Your task to perform on an android device: turn off location Image 0: 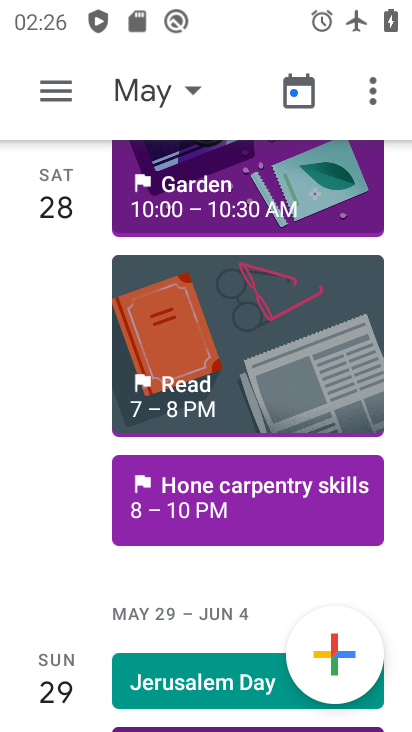
Step 0: press home button
Your task to perform on an android device: turn off location Image 1: 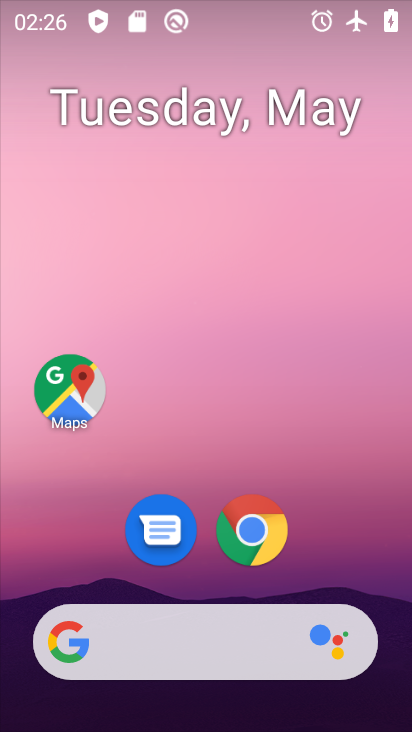
Step 1: drag from (181, 579) to (271, 121)
Your task to perform on an android device: turn off location Image 2: 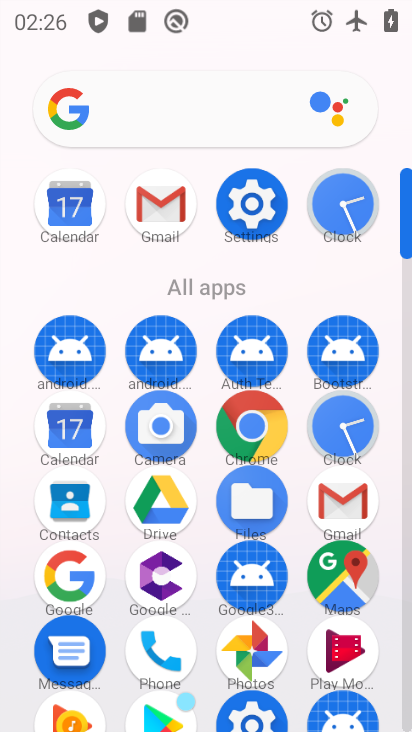
Step 2: click (256, 159)
Your task to perform on an android device: turn off location Image 3: 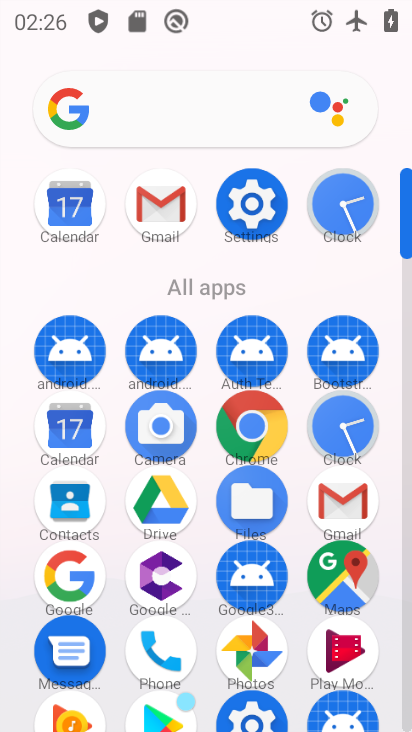
Step 3: click (251, 178)
Your task to perform on an android device: turn off location Image 4: 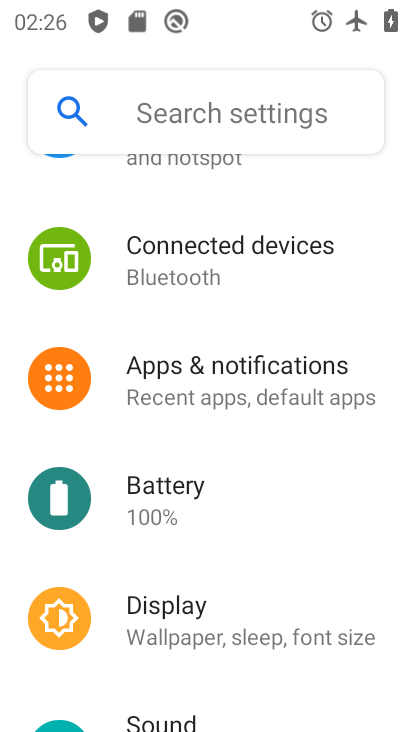
Step 4: drag from (251, 603) to (299, 233)
Your task to perform on an android device: turn off location Image 5: 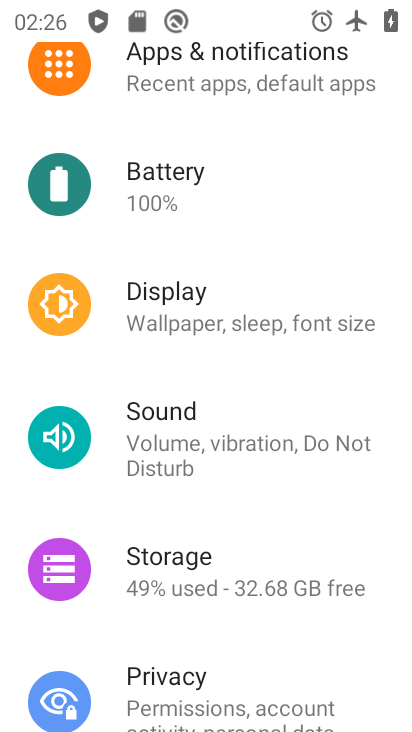
Step 5: drag from (234, 588) to (308, 243)
Your task to perform on an android device: turn off location Image 6: 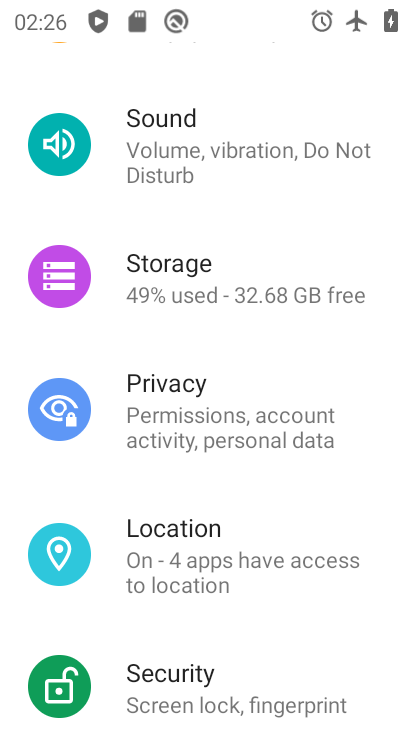
Step 6: click (278, 521)
Your task to perform on an android device: turn off location Image 7: 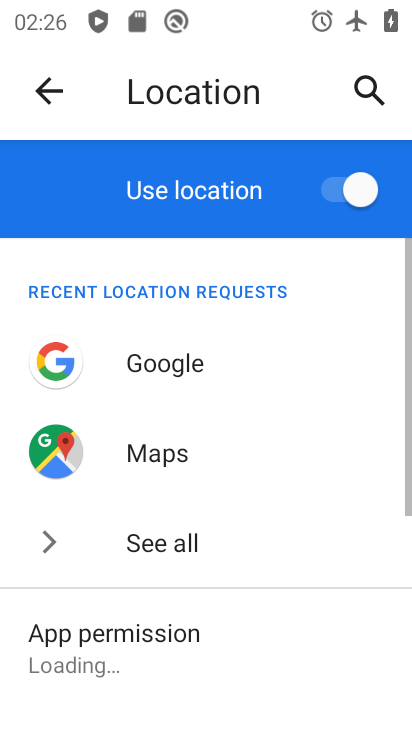
Step 7: click (325, 188)
Your task to perform on an android device: turn off location Image 8: 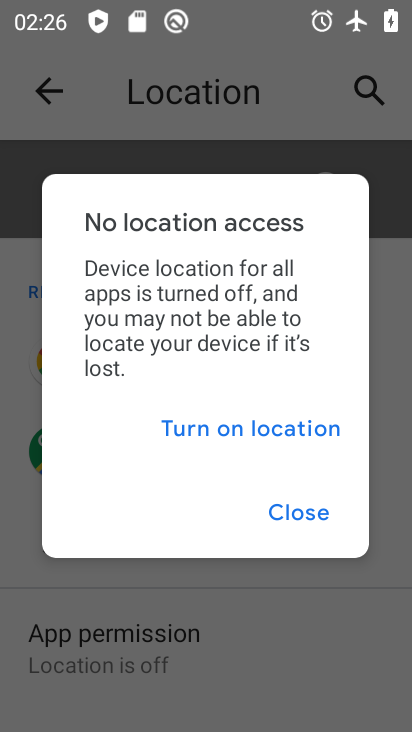
Step 8: task complete